Your task to perform on an android device: Do I have any events this weekend? Image 0: 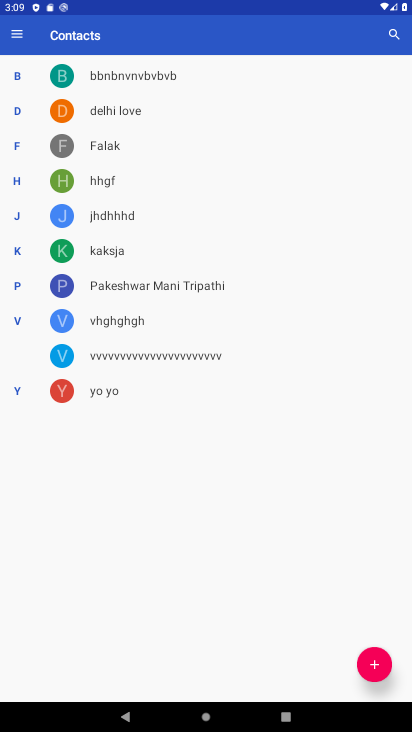
Step 0: press home button
Your task to perform on an android device: Do I have any events this weekend? Image 1: 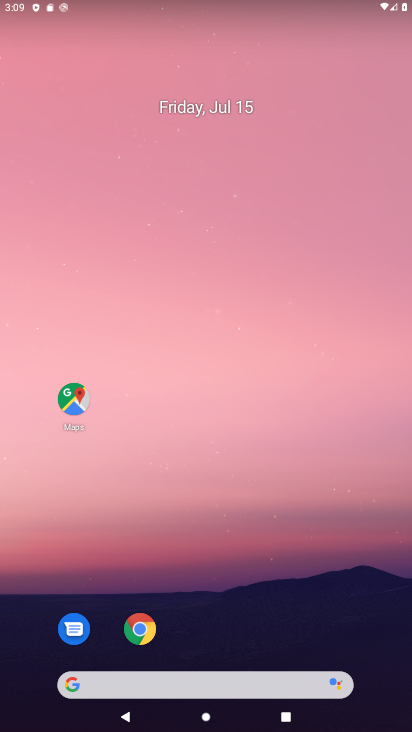
Step 1: drag from (381, 696) to (293, 72)
Your task to perform on an android device: Do I have any events this weekend? Image 2: 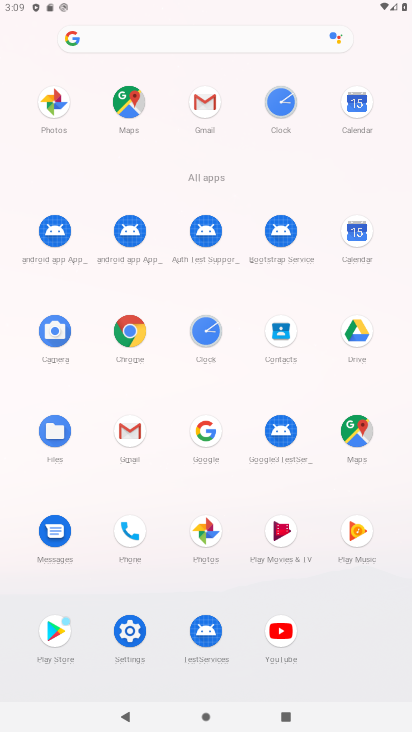
Step 2: click (356, 227)
Your task to perform on an android device: Do I have any events this weekend? Image 3: 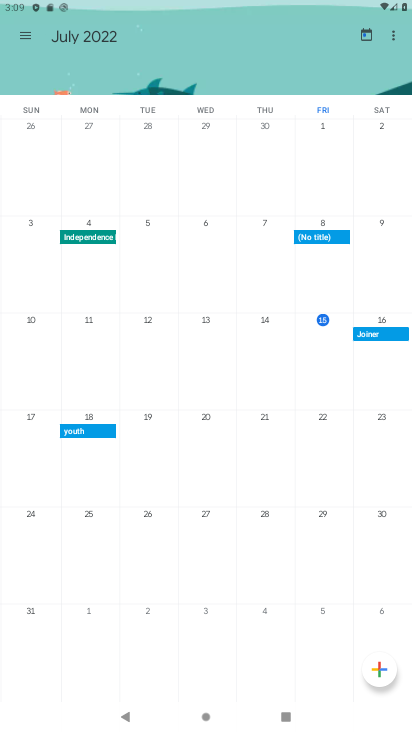
Step 3: click (20, 40)
Your task to perform on an android device: Do I have any events this weekend? Image 4: 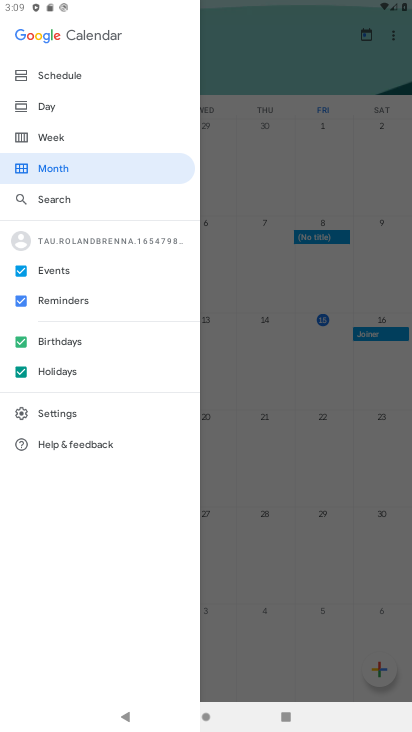
Step 4: click (45, 138)
Your task to perform on an android device: Do I have any events this weekend? Image 5: 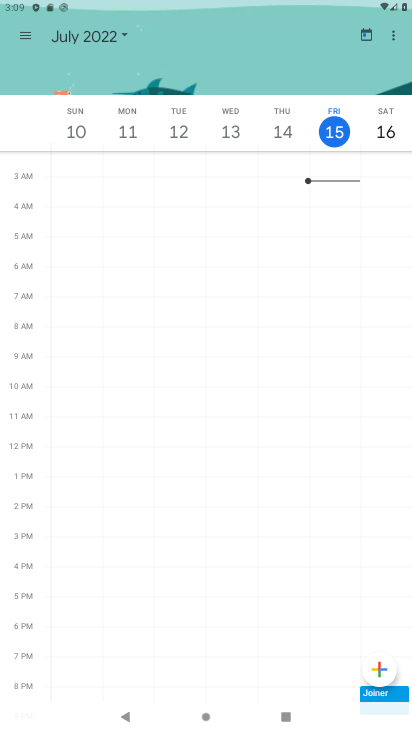
Step 5: click (23, 25)
Your task to perform on an android device: Do I have any events this weekend? Image 6: 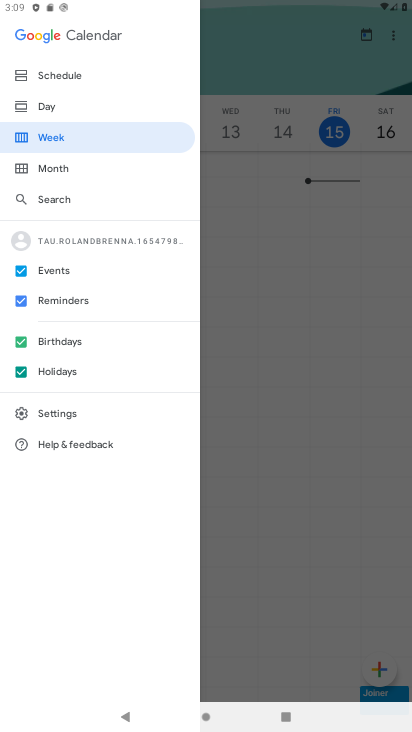
Step 6: click (57, 72)
Your task to perform on an android device: Do I have any events this weekend? Image 7: 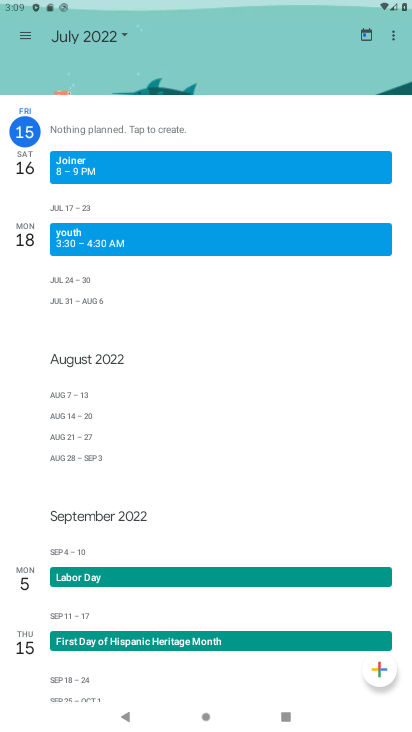
Step 7: task complete